Your task to perform on an android device: Open the web browser Image 0: 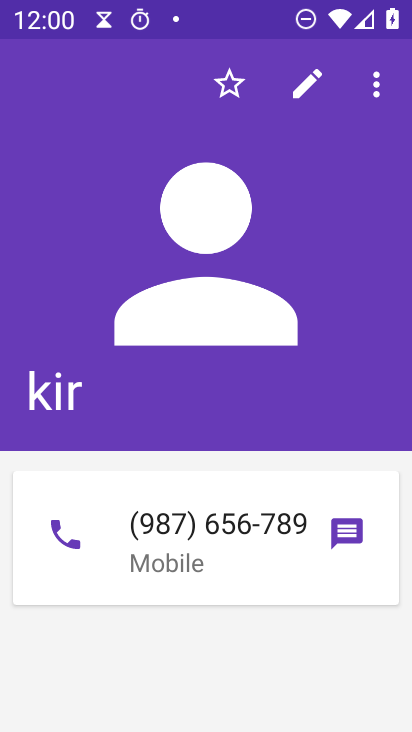
Step 0: press home button
Your task to perform on an android device: Open the web browser Image 1: 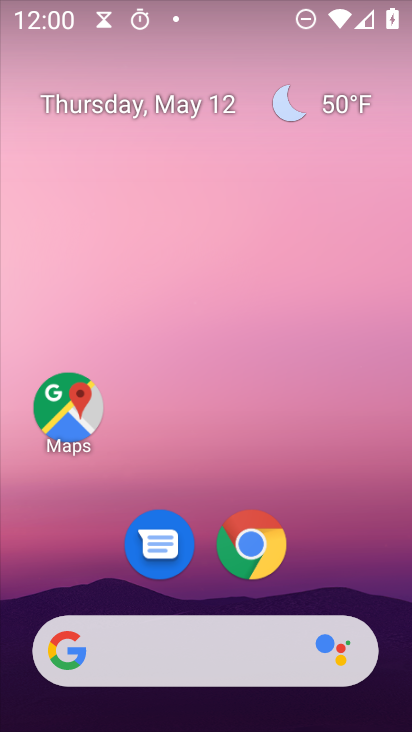
Step 1: click (87, 620)
Your task to perform on an android device: Open the web browser Image 2: 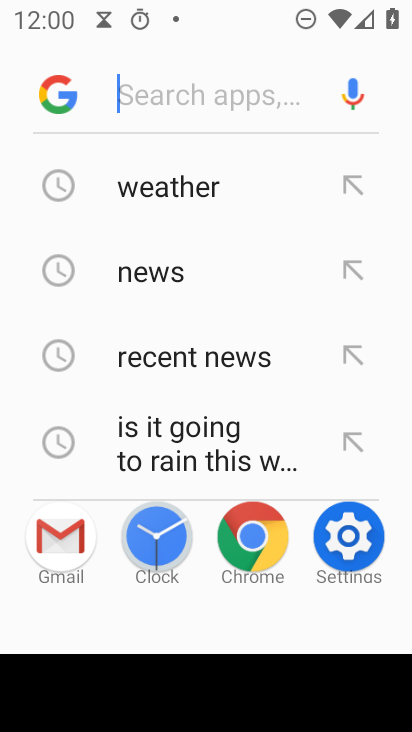
Step 2: task complete